Your task to perform on an android device: Play the last video I watched on Youtube Image 0: 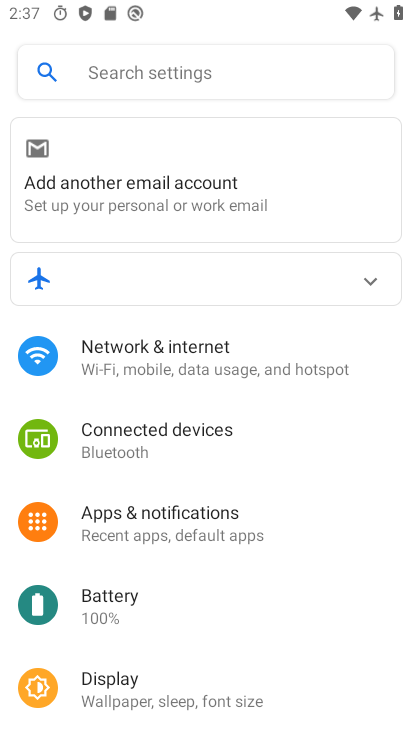
Step 0: press home button
Your task to perform on an android device: Play the last video I watched on Youtube Image 1: 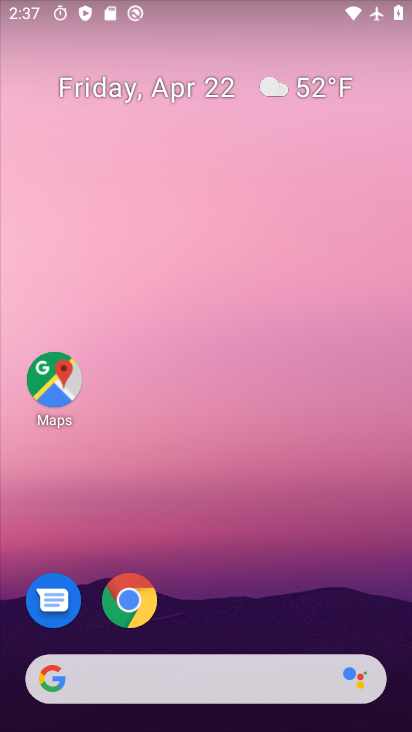
Step 1: drag from (220, 713) to (217, 308)
Your task to perform on an android device: Play the last video I watched on Youtube Image 2: 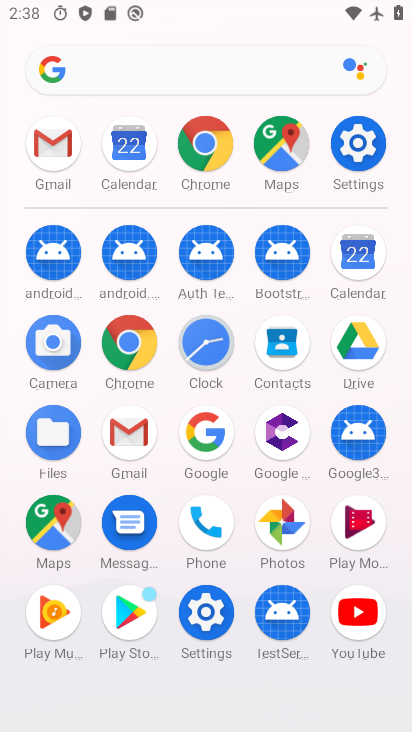
Step 2: click (356, 617)
Your task to perform on an android device: Play the last video I watched on Youtube Image 3: 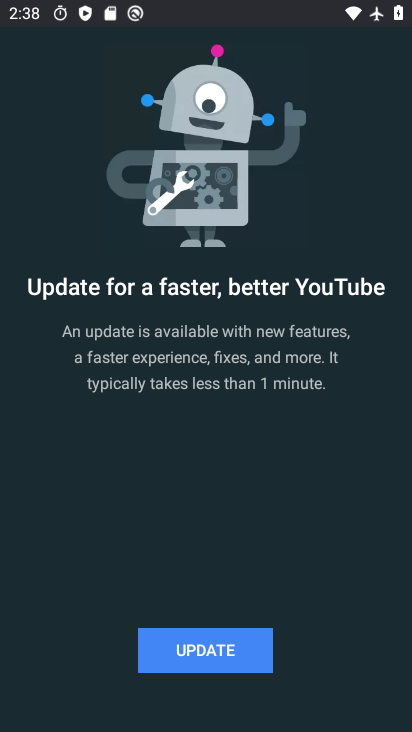
Step 3: task complete